Your task to perform on an android device: Open calendar and show me the second week of next month Image 0: 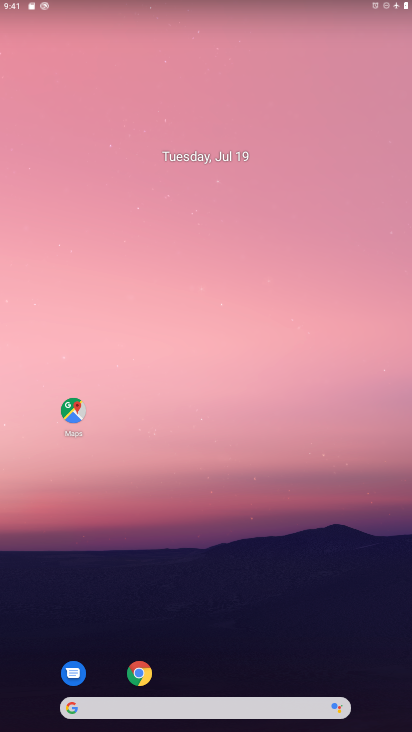
Step 0: drag from (369, 664) to (337, 153)
Your task to perform on an android device: Open calendar and show me the second week of next month Image 1: 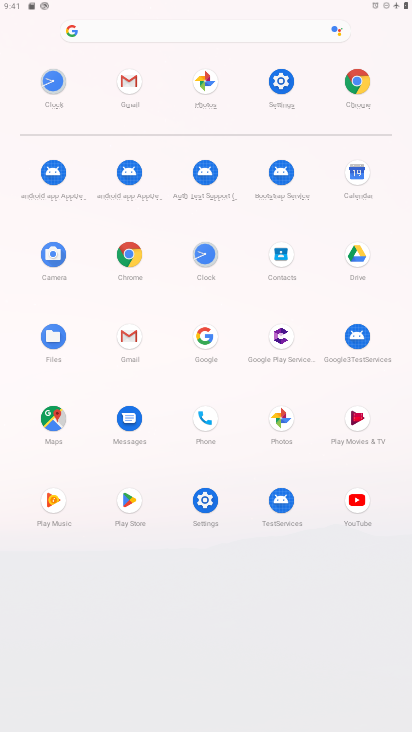
Step 1: click (354, 172)
Your task to perform on an android device: Open calendar and show me the second week of next month Image 2: 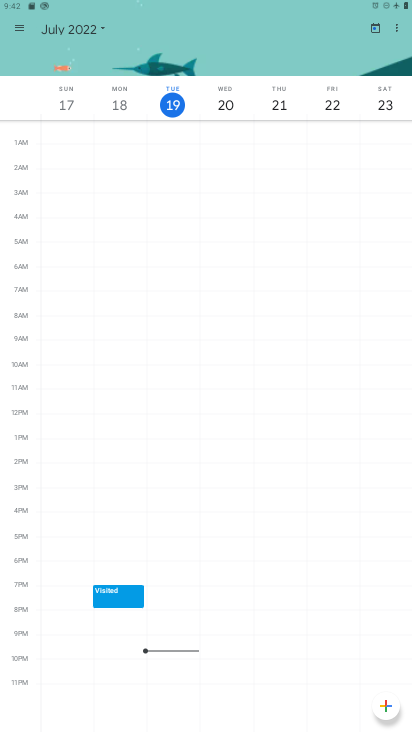
Step 2: click (22, 28)
Your task to perform on an android device: Open calendar and show me the second week of next month Image 3: 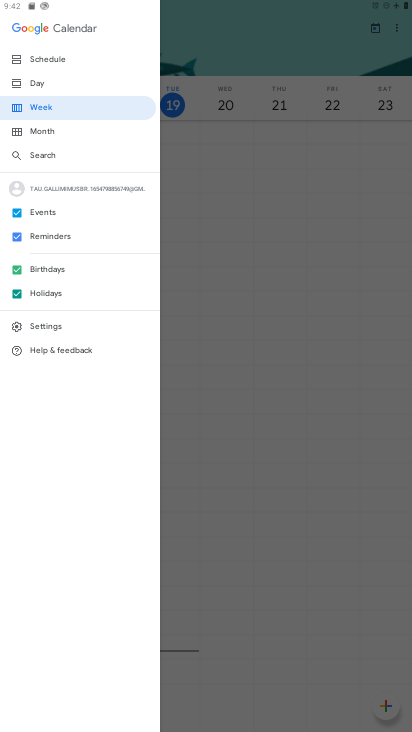
Step 3: click (230, 69)
Your task to perform on an android device: Open calendar and show me the second week of next month Image 4: 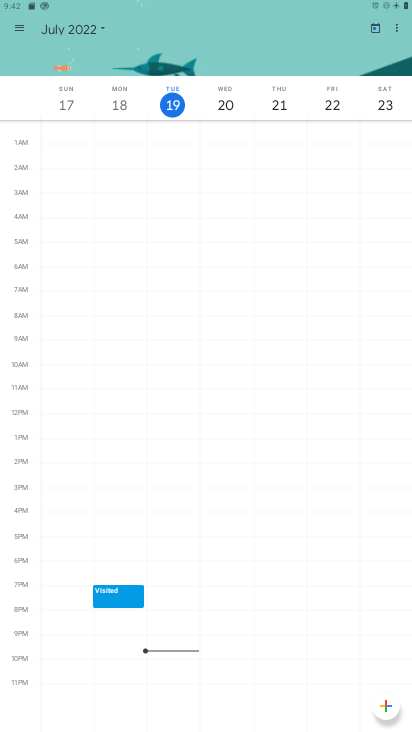
Step 4: click (98, 26)
Your task to perform on an android device: Open calendar and show me the second week of next month Image 5: 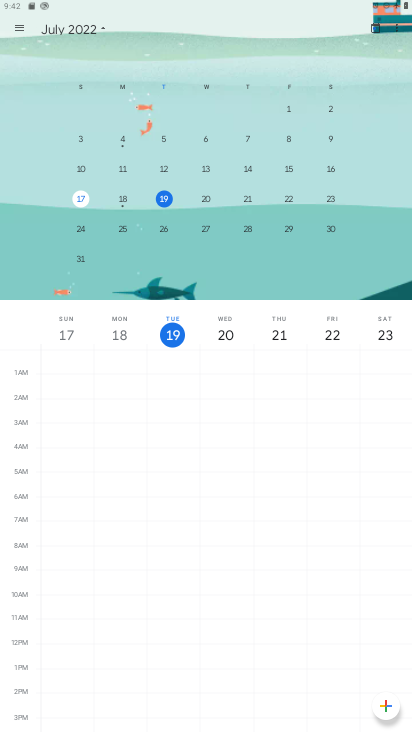
Step 5: drag from (334, 202) to (0, 181)
Your task to perform on an android device: Open calendar and show me the second week of next month Image 6: 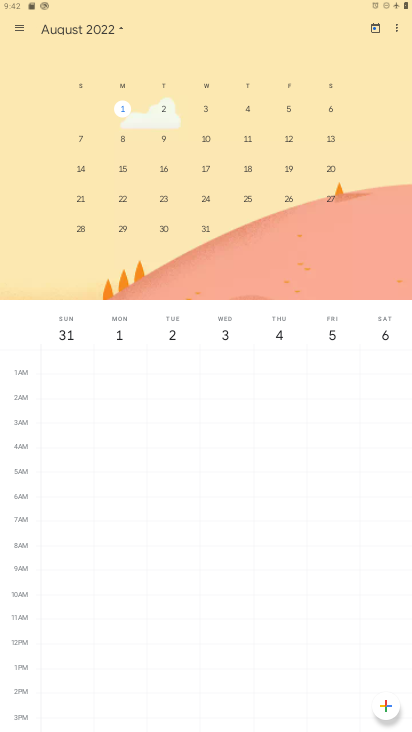
Step 6: click (79, 169)
Your task to perform on an android device: Open calendar and show me the second week of next month Image 7: 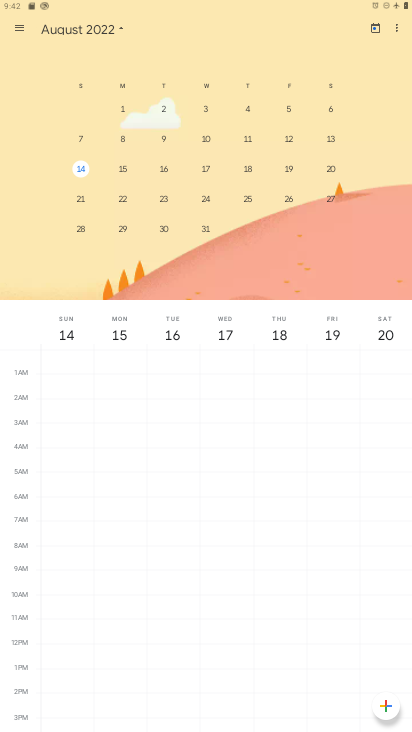
Step 7: task complete